Your task to perform on an android device: Search for sushi restaurants on Maps Image 0: 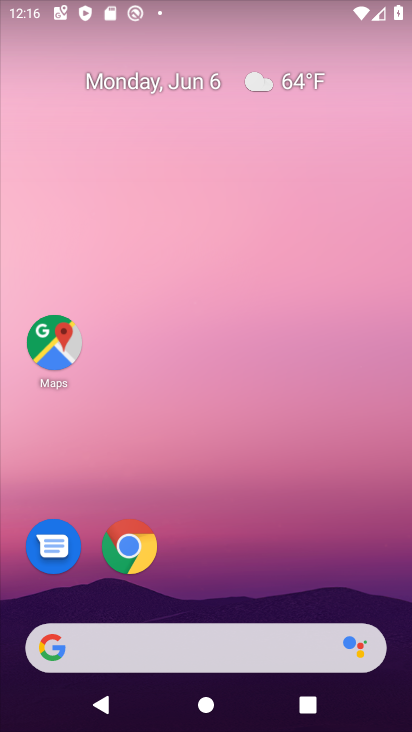
Step 0: click (54, 333)
Your task to perform on an android device: Search for sushi restaurants on Maps Image 1: 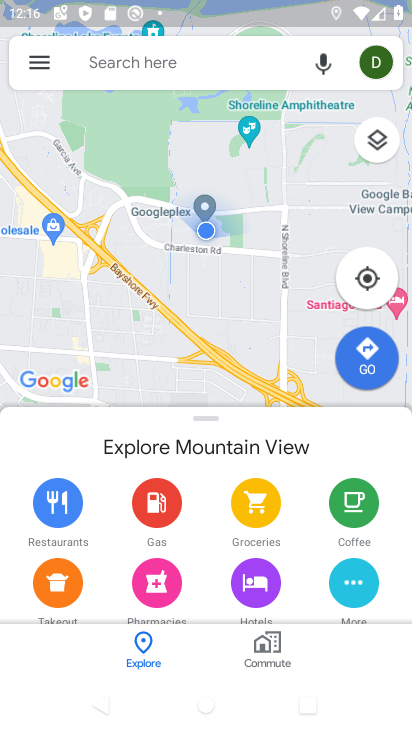
Step 1: click (183, 47)
Your task to perform on an android device: Search for sushi restaurants on Maps Image 2: 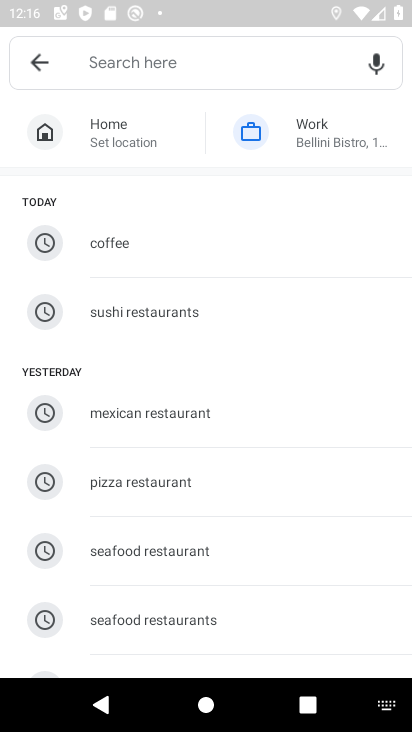
Step 2: drag from (182, 565) to (192, 332)
Your task to perform on an android device: Search for sushi restaurants on Maps Image 3: 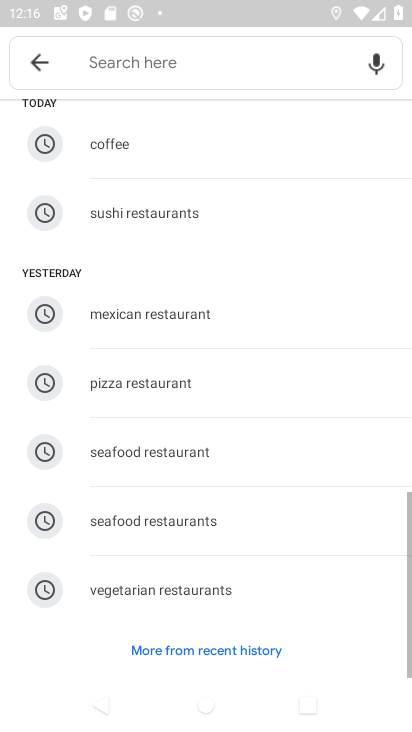
Step 3: click (158, 207)
Your task to perform on an android device: Search for sushi restaurants on Maps Image 4: 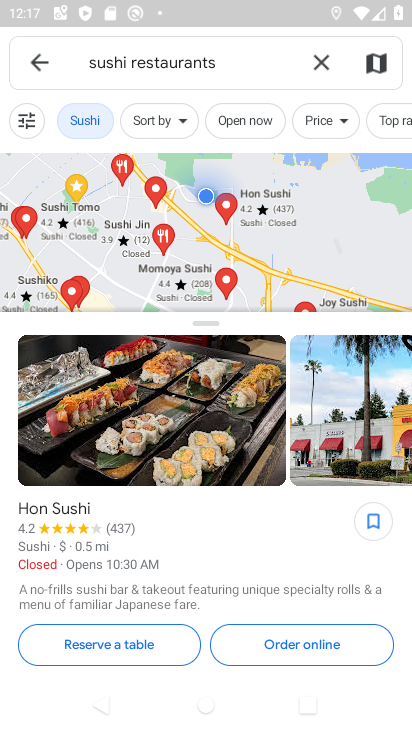
Step 4: task complete